Your task to perform on an android device: change timer sound Image 0: 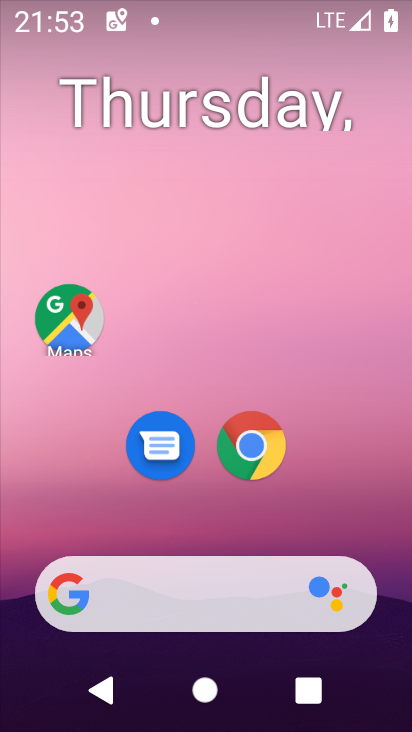
Step 0: drag from (245, 473) to (267, 194)
Your task to perform on an android device: change timer sound Image 1: 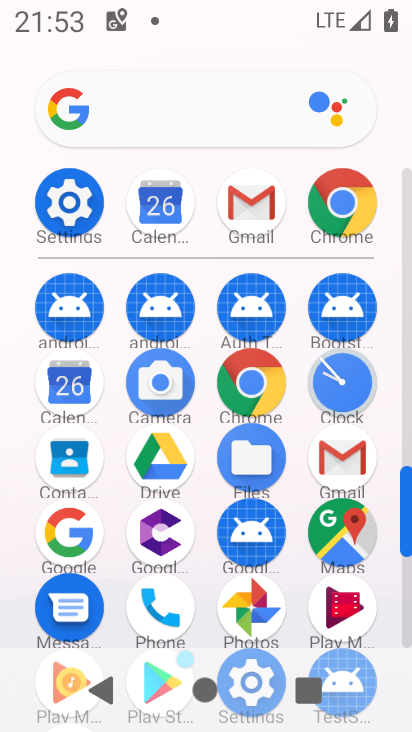
Step 1: click (355, 389)
Your task to perform on an android device: change timer sound Image 2: 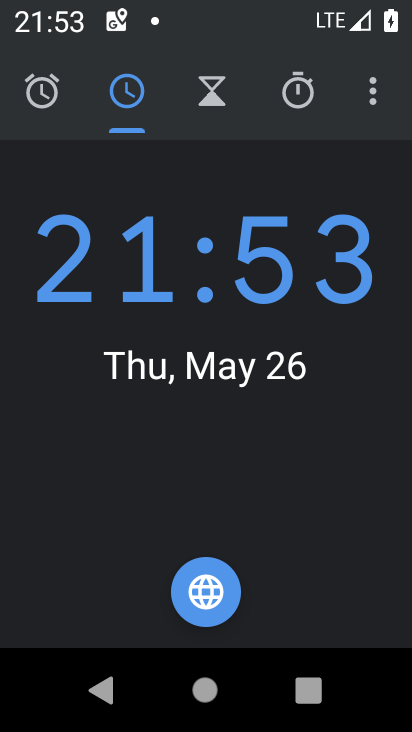
Step 2: click (374, 88)
Your task to perform on an android device: change timer sound Image 3: 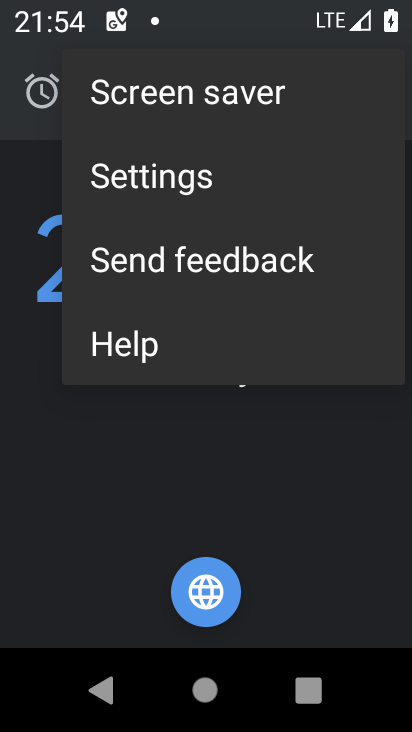
Step 3: click (263, 189)
Your task to perform on an android device: change timer sound Image 4: 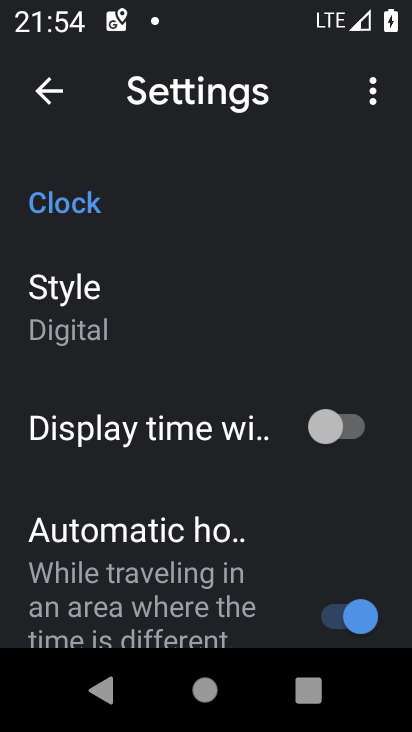
Step 4: drag from (203, 493) to (235, 136)
Your task to perform on an android device: change timer sound Image 5: 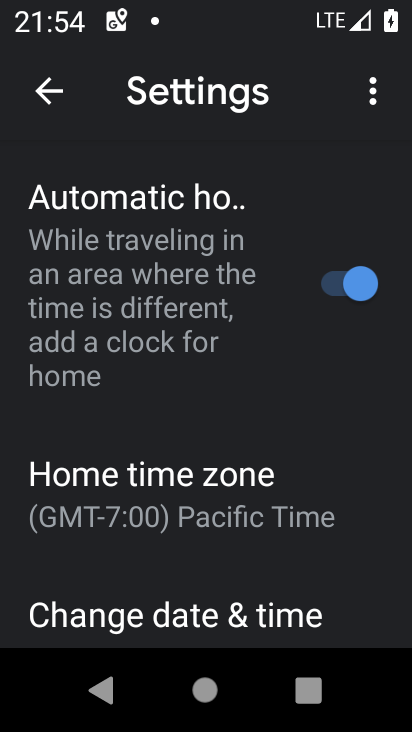
Step 5: drag from (143, 499) to (178, 146)
Your task to perform on an android device: change timer sound Image 6: 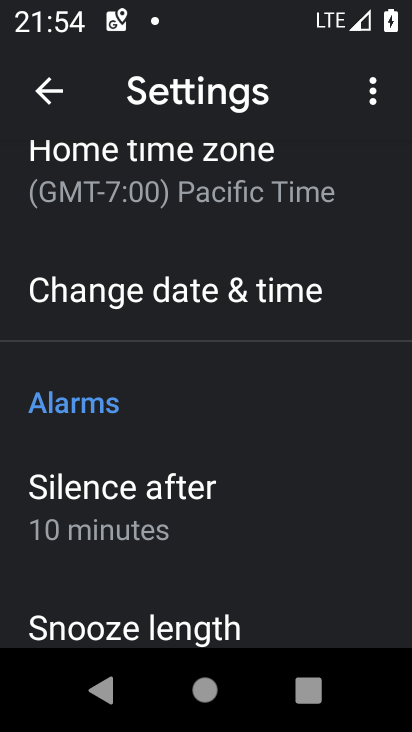
Step 6: drag from (161, 489) to (163, 224)
Your task to perform on an android device: change timer sound Image 7: 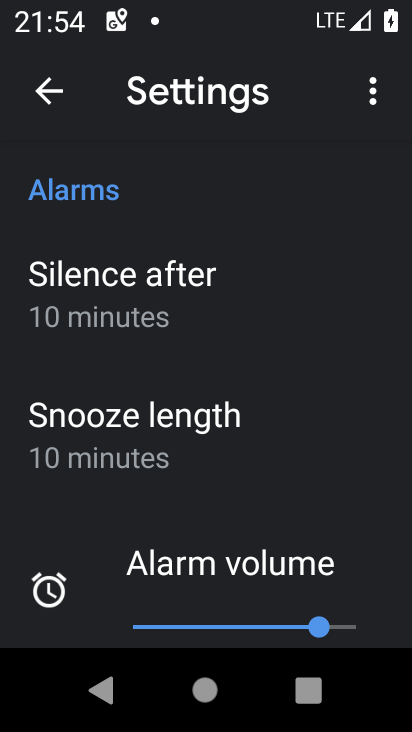
Step 7: drag from (163, 500) to (200, 222)
Your task to perform on an android device: change timer sound Image 8: 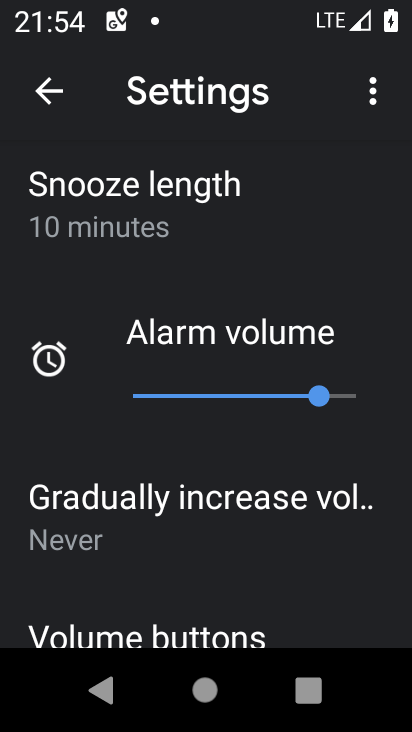
Step 8: drag from (176, 519) to (184, 211)
Your task to perform on an android device: change timer sound Image 9: 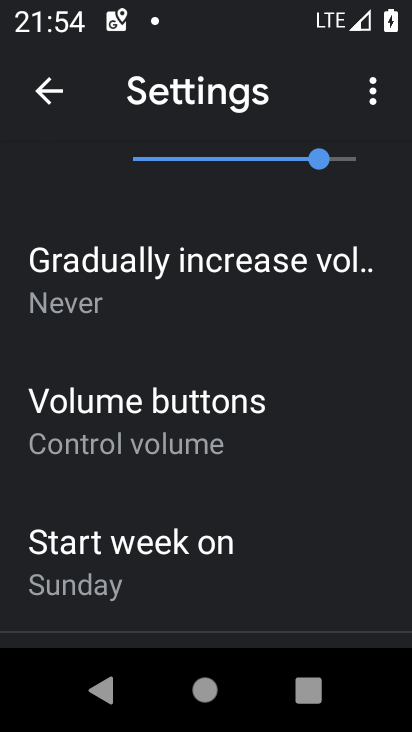
Step 9: drag from (164, 502) to (213, 224)
Your task to perform on an android device: change timer sound Image 10: 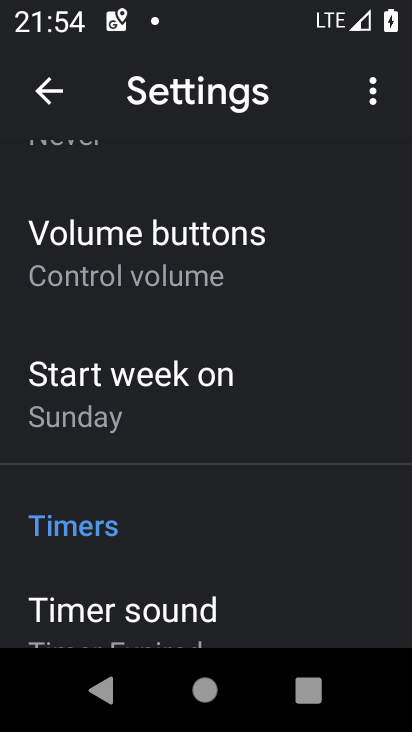
Step 10: drag from (179, 536) to (191, 297)
Your task to perform on an android device: change timer sound Image 11: 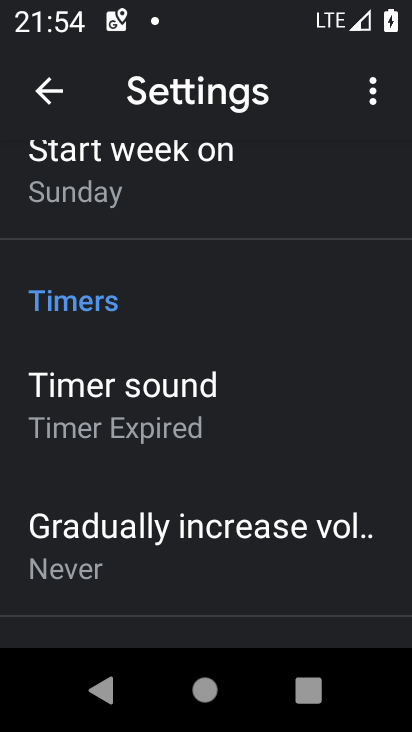
Step 11: click (187, 420)
Your task to perform on an android device: change timer sound Image 12: 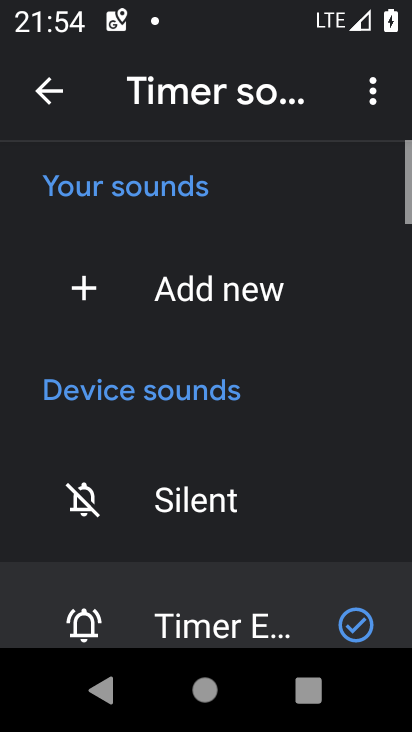
Step 12: drag from (197, 522) to (198, 197)
Your task to perform on an android device: change timer sound Image 13: 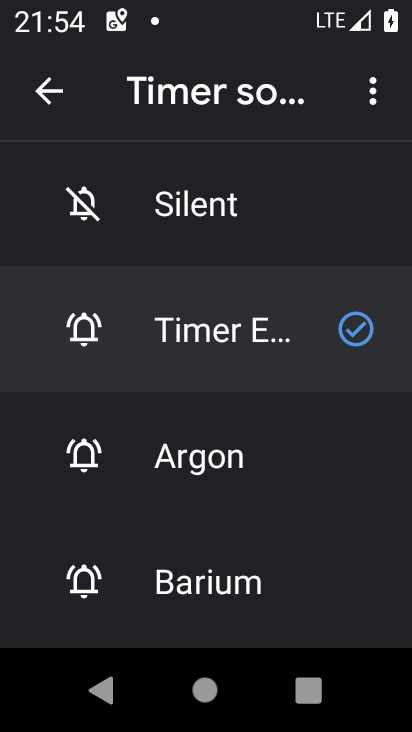
Step 13: click (203, 472)
Your task to perform on an android device: change timer sound Image 14: 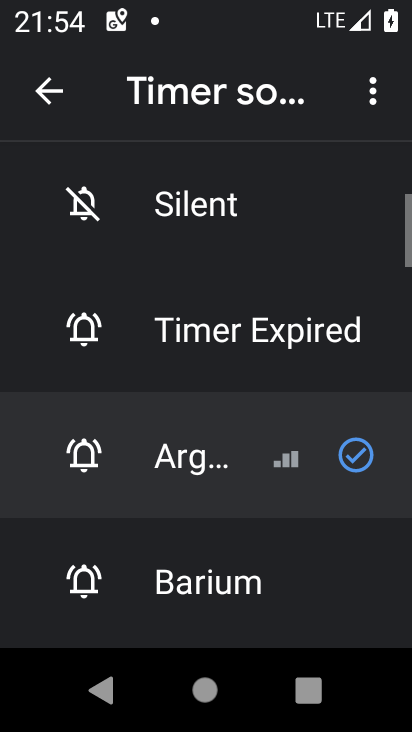
Step 14: task complete